Your task to perform on an android device: toggle airplane mode Image 0: 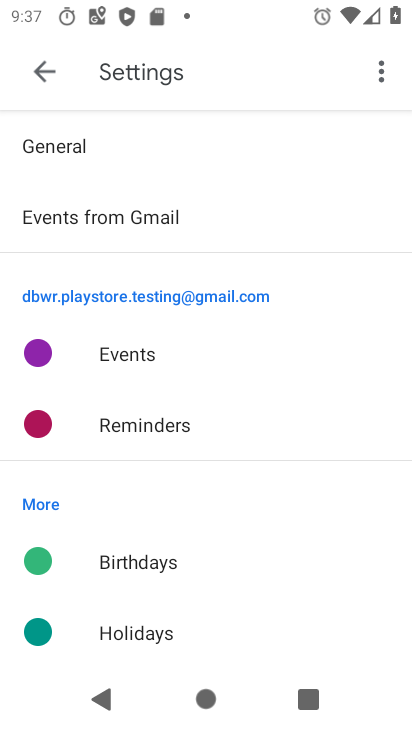
Step 0: press home button
Your task to perform on an android device: toggle airplane mode Image 1: 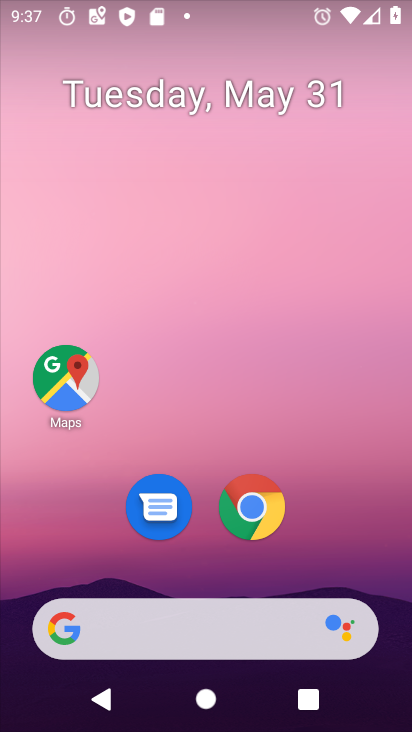
Step 1: drag from (328, 574) to (307, 16)
Your task to perform on an android device: toggle airplane mode Image 2: 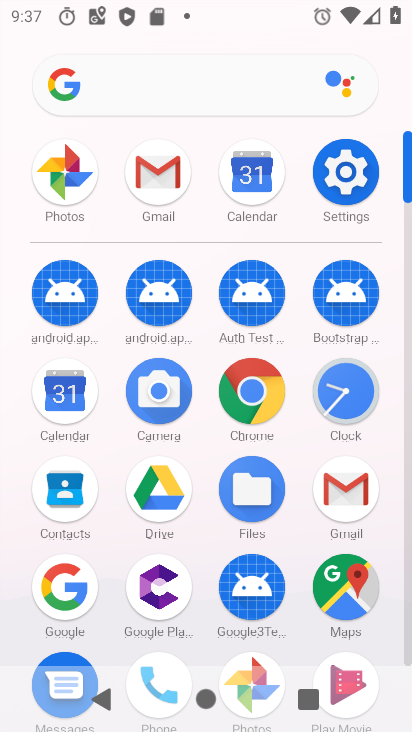
Step 2: click (348, 170)
Your task to perform on an android device: toggle airplane mode Image 3: 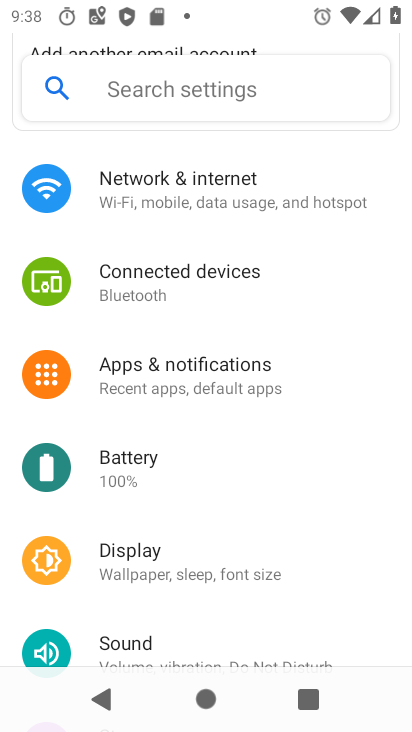
Step 3: click (247, 207)
Your task to perform on an android device: toggle airplane mode Image 4: 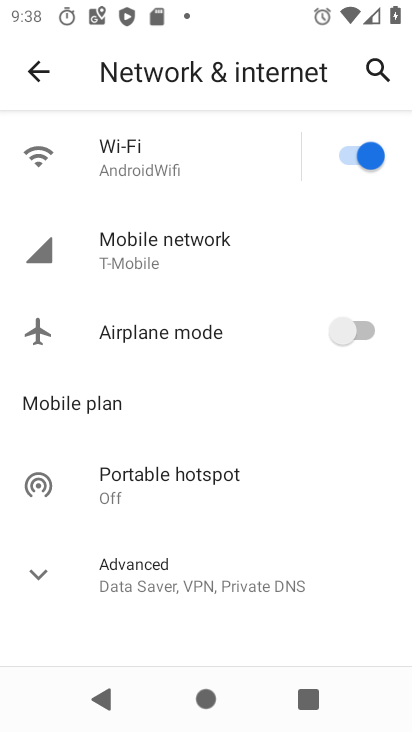
Step 4: click (335, 335)
Your task to perform on an android device: toggle airplane mode Image 5: 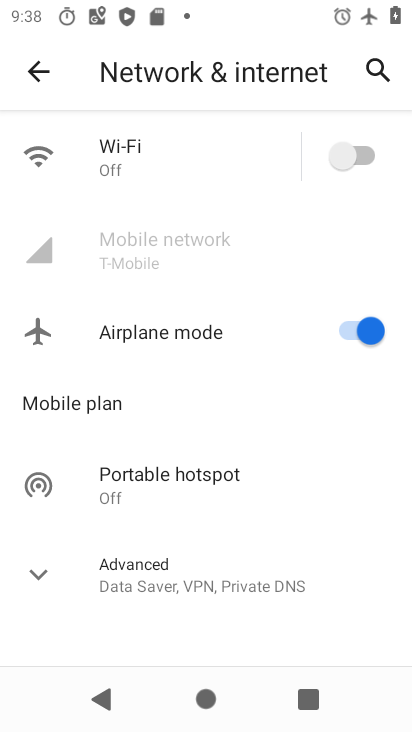
Step 5: task complete